Your task to perform on an android device: Show me popular videos on Youtube Image 0: 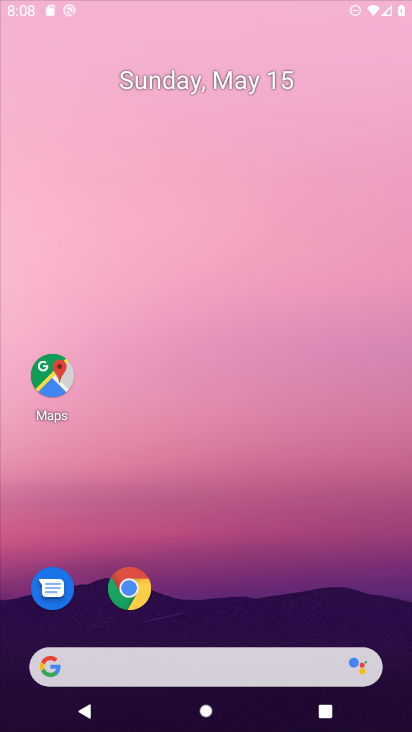
Step 0: press home button
Your task to perform on an android device: Show me popular videos on Youtube Image 1: 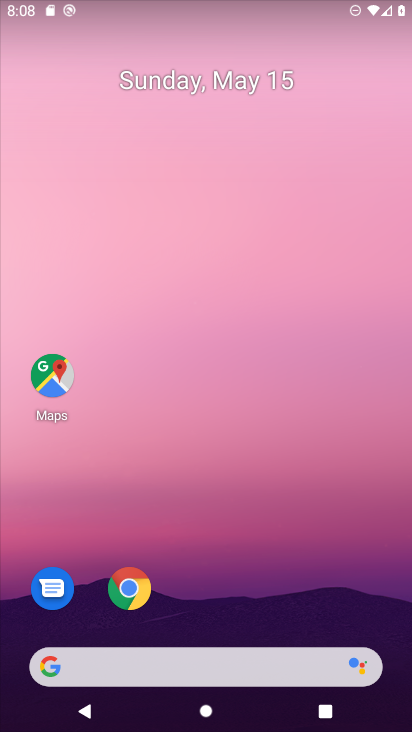
Step 1: drag from (197, 619) to (223, 140)
Your task to perform on an android device: Show me popular videos on Youtube Image 2: 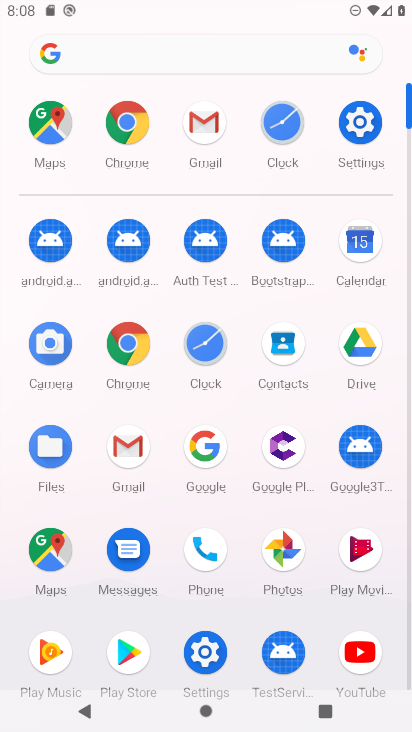
Step 2: click (358, 644)
Your task to perform on an android device: Show me popular videos on Youtube Image 3: 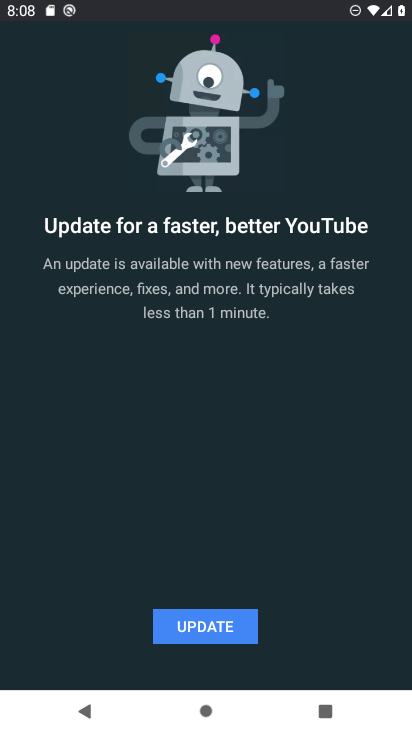
Step 3: click (209, 628)
Your task to perform on an android device: Show me popular videos on Youtube Image 4: 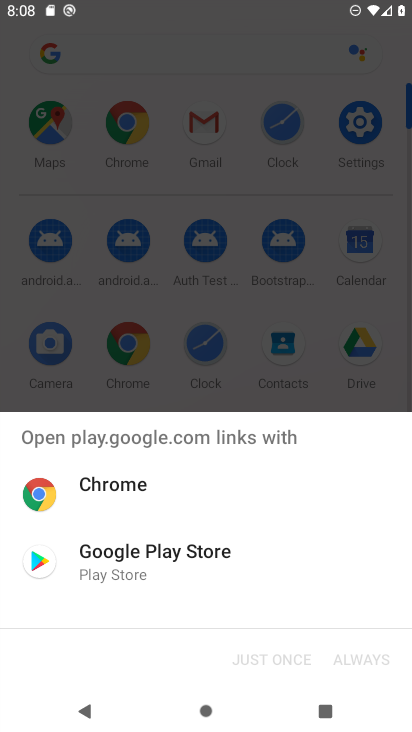
Step 4: click (101, 558)
Your task to perform on an android device: Show me popular videos on Youtube Image 5: 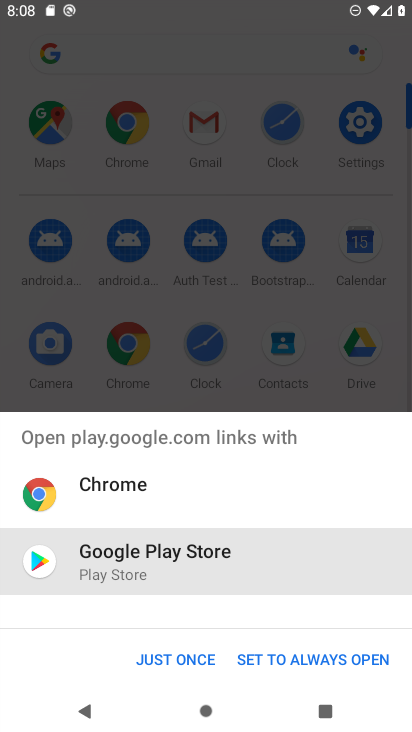
Step 5: click (174, 651)
Your task to perform on an android device: Show me popular videos on Youtube Image 6: 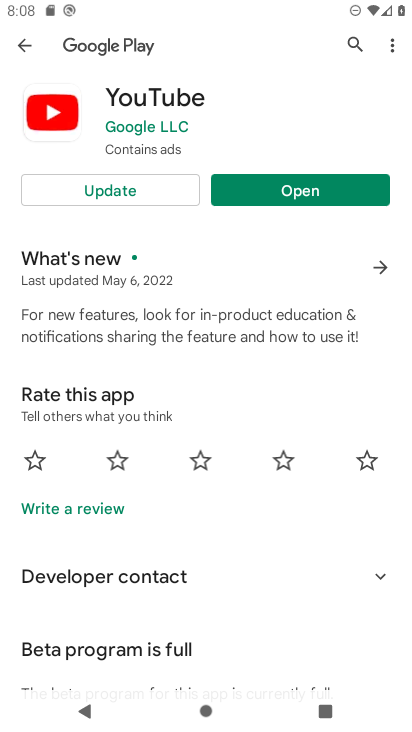
Step 6: click (109, 186)
Your task to perform on an android device: Show me popular videos on Youtube Image 7: 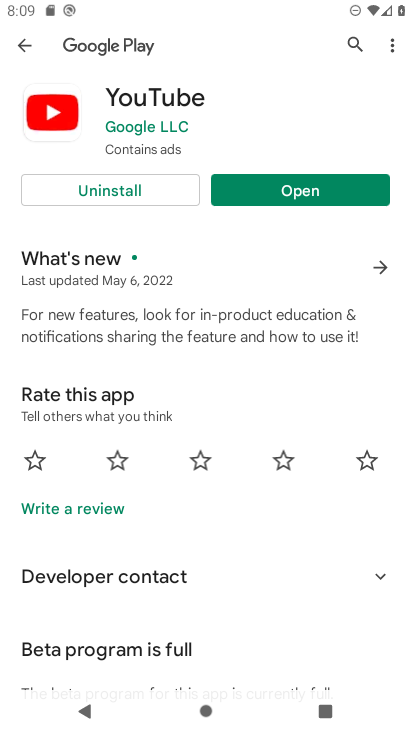
Step 7: click (301, 181)
Your task to perform on an android device: Show me popular videos on Youtube Image 8: 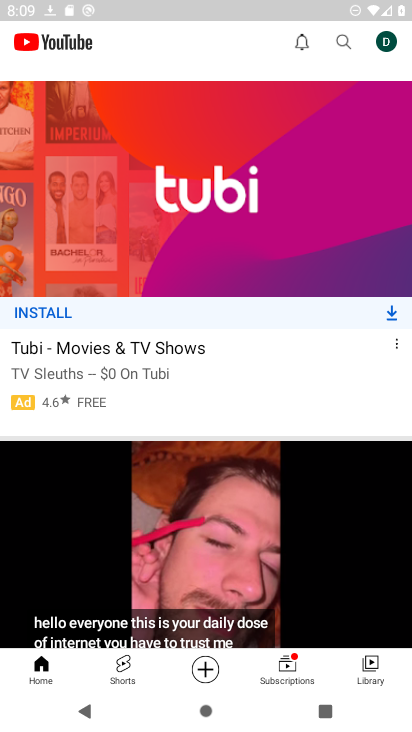
Step 8: drag from (138, 539) to (162, 175)
Your task to perform on an android device: Show me popular videos on Youtube Image 9: 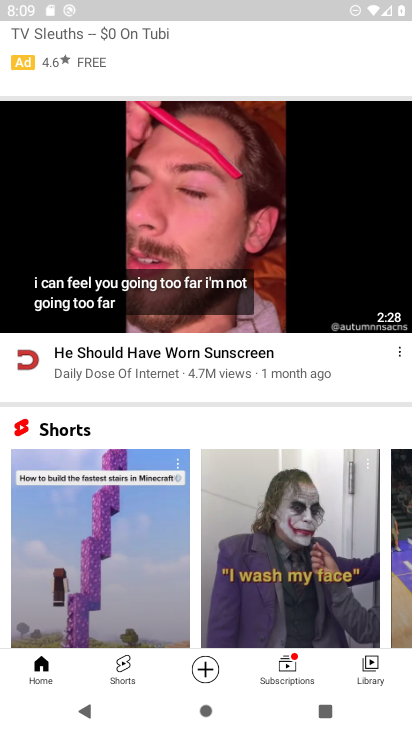
Step 9: drag from (95, 181) to (93, 590)
Your task to perform on an android device: Show me popular videos on Youtube Image 10: 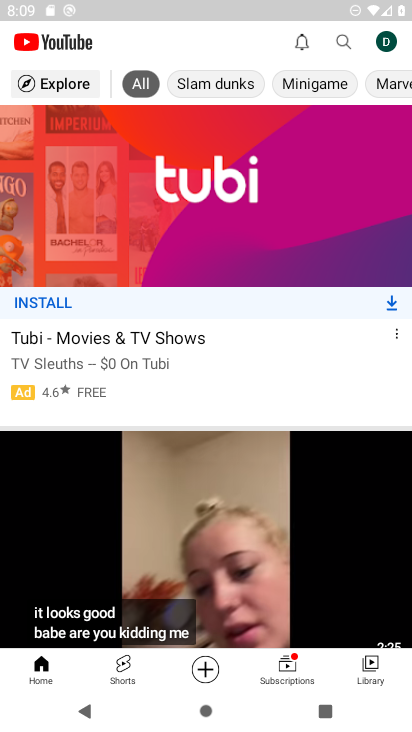
Step 10: click (42, 79)
Your task to perform on an android device: Show me popular videos on Youtube Image 11: 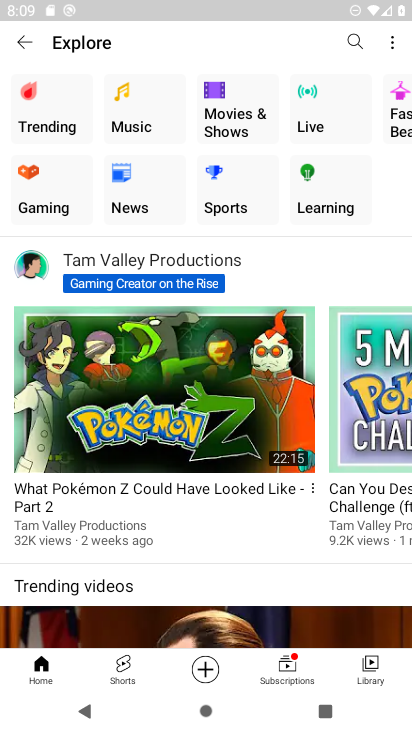
Step 11: click (45, 101)
Your task to perform on an android device: Show me popular videos on Youtube Image 12: 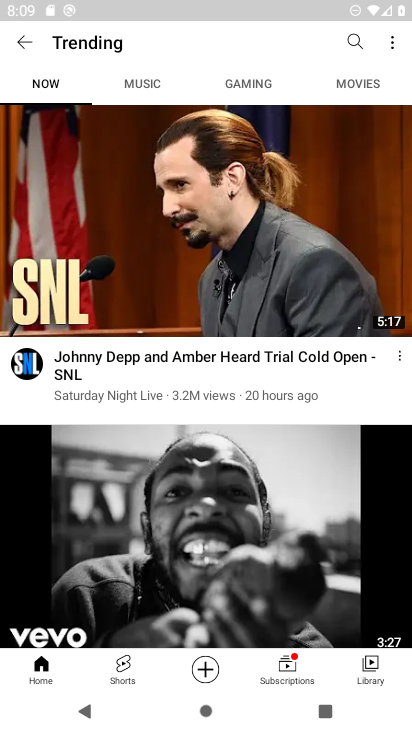
Step 12: task complete